Your task to perform on an android device: toggle airplane mode Image 0: 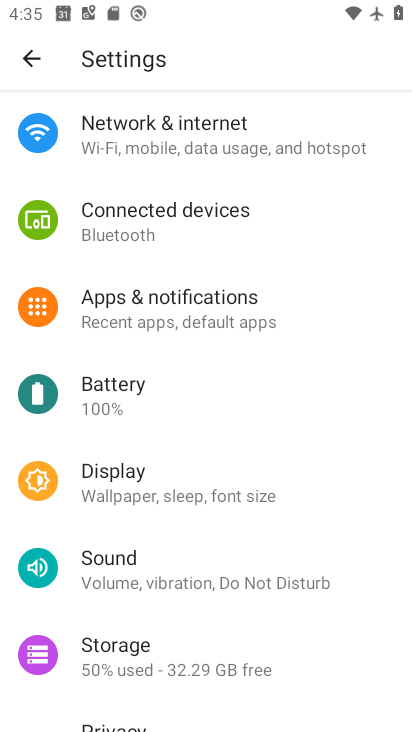
Step 0: click (216, 146)
Your task to perform on an android device: toggle airplane mode Image 1: 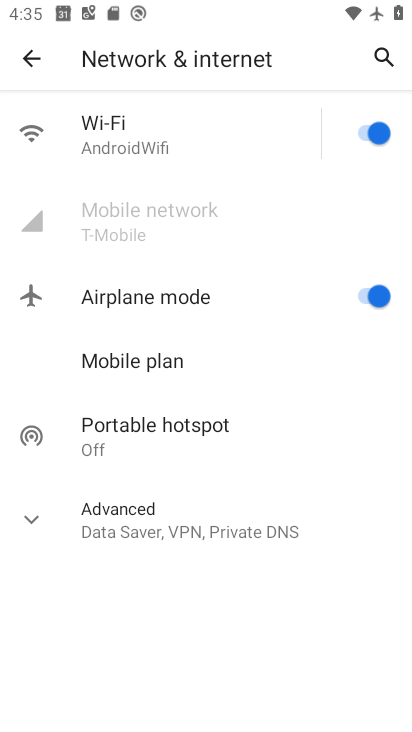
Step 1: click (379, 285)
Your task to perform on an android device: toggle airplane mode Image 2: 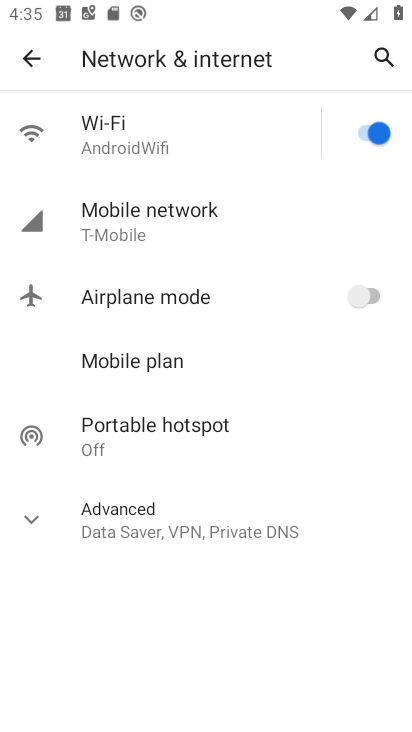
Step 2: task complete